Your task to perform on an android device: stop showing notifications on the lock screen Image 0: 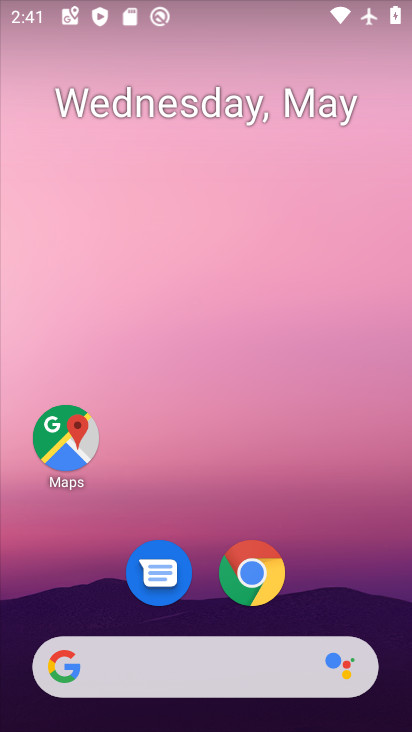
Step 0: drag from (304, 607) to (318, 2)
Your task to perform on an android device: stop showing notifications on the lock screen Image 1: 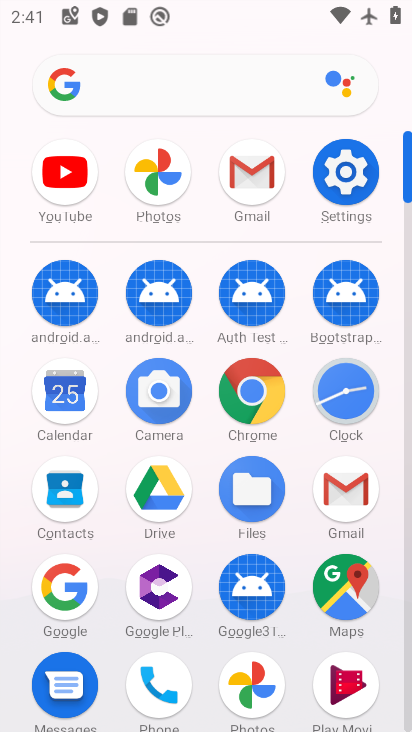
Step 1: click (340, 173)
Your task to perform on an android device: stop showing notifications on the lock screen Image 2: 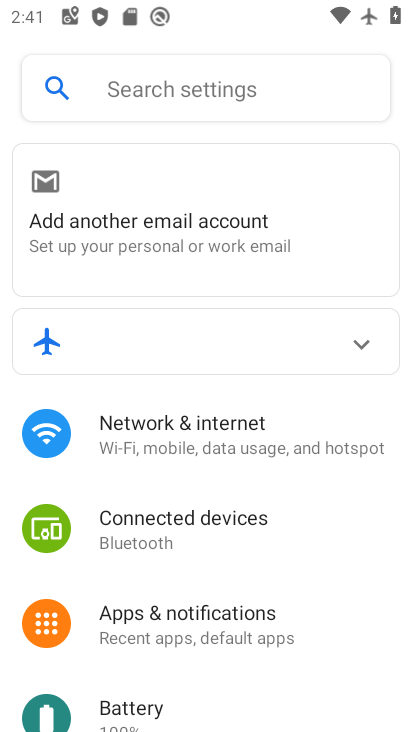
Step 2: click (231, 615)
Your task to perform on an android device: stop showing notifications on the lock screen Image 3: 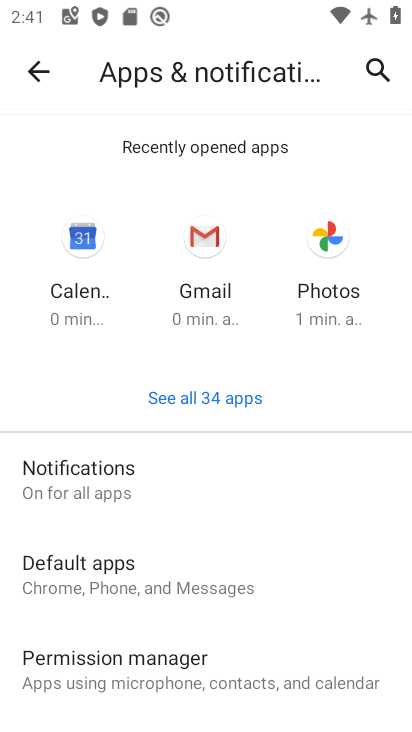
Step 3: click (146, 483)
Your task to perform on an android device: stop showing notifications on the lock screen Image 4: 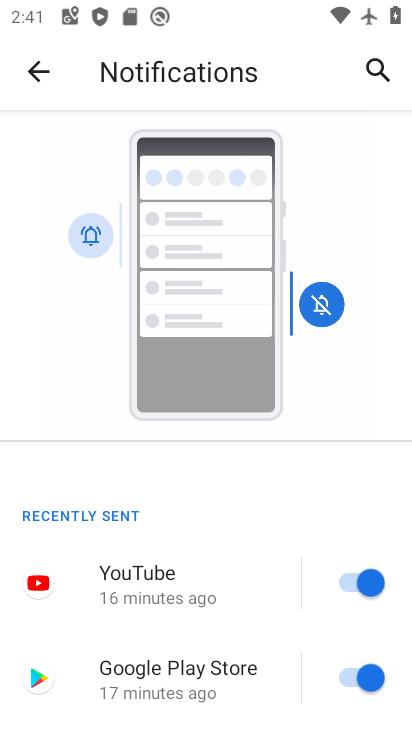
Step 4: drag from (172, 601) to (233, 241)
Your task to perform on an android device: stop showing notifications on the lock screen Image 5: 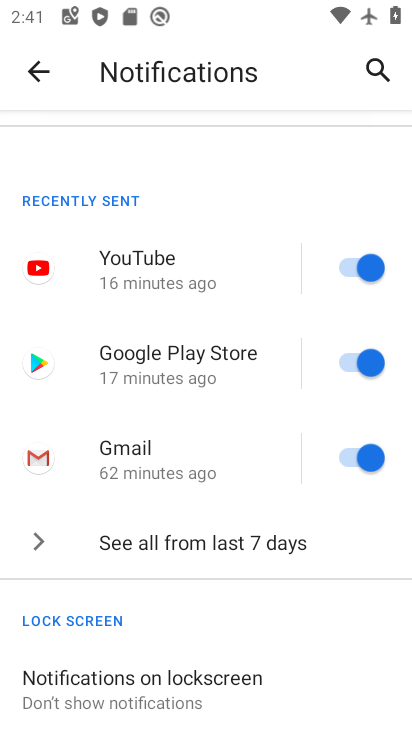
Step 5: drag from (192, 665) to (196, 360)
Your task to perform on an android device: stop showing notifications on the lock screen Image 6: 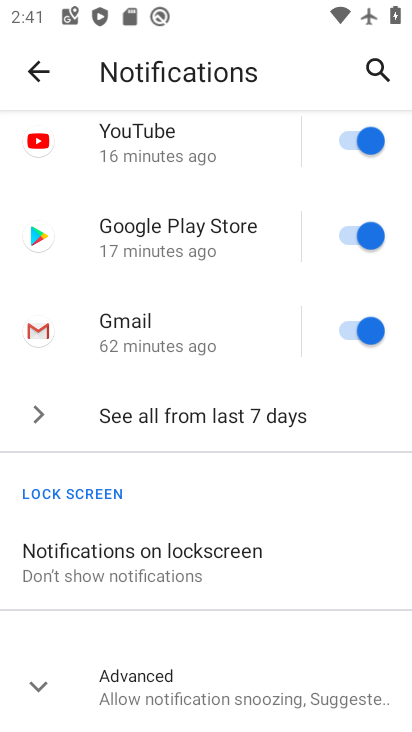
Step 6: click (126, 574)
Your task to perform on an android device: stop showing notifications on the lock screen Image 7: 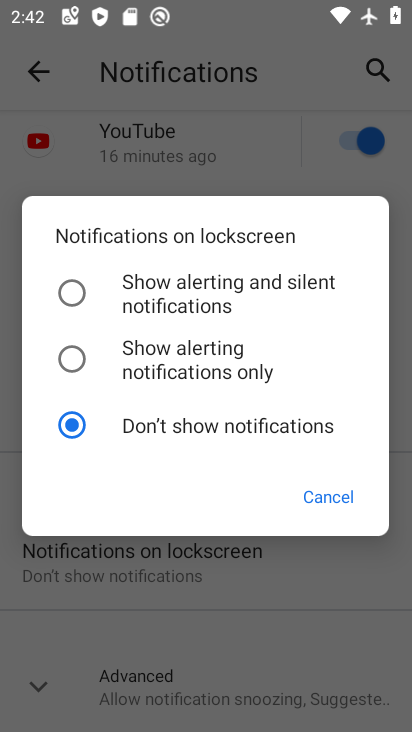
Step 7: click (245, 421)
Your task to perform on an android device: stop showing notifications on the lock screen Image 8: 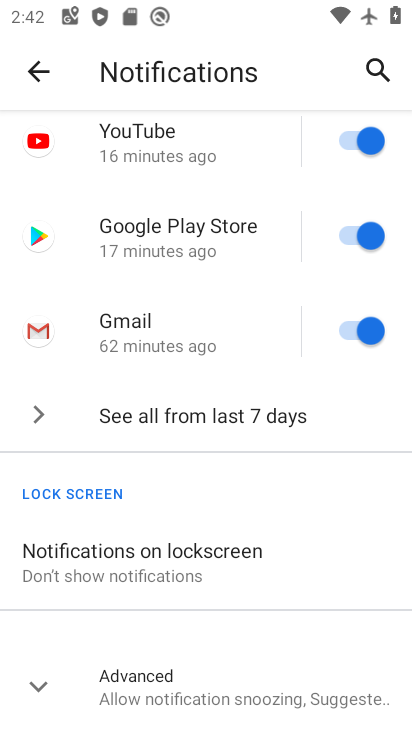
Step 8: task complete